Your task to perform on an android device: change your default location settings in chrome Image 0: 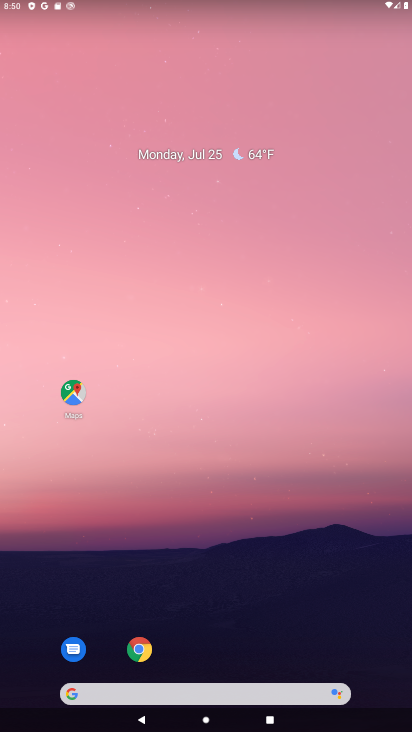
Step 0: click (288, 618)
Your task to perform on an android device: change your default location settings in chrome Image 1: 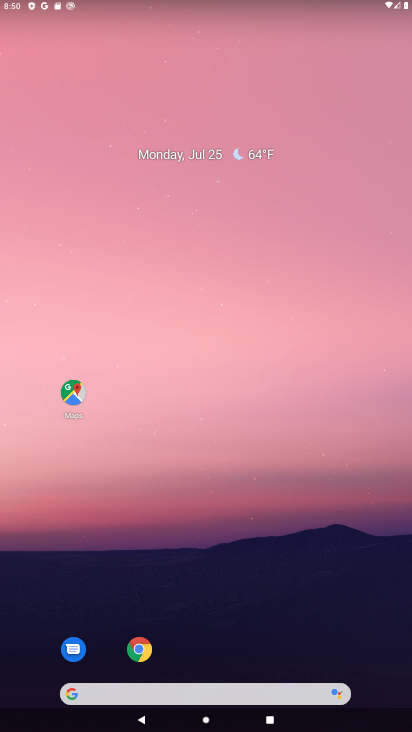
Step 1: click (144, 649)
Your task to perform on an android device: change your default location settings in chrome Image 2: 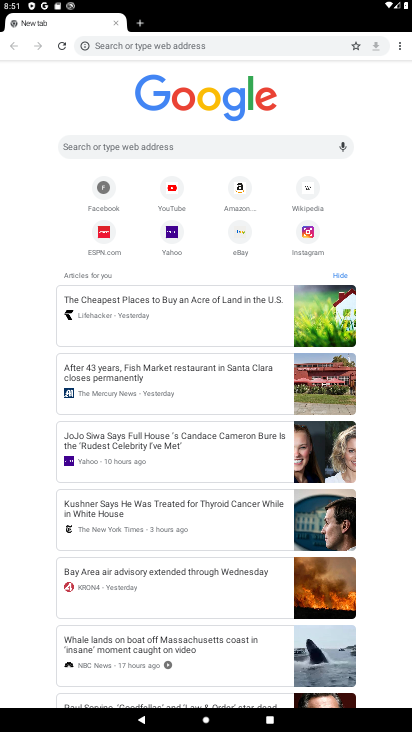
Step 2: click (398, 48)
Your task to perform on an android device: change your default location settings in chrome Image 3: 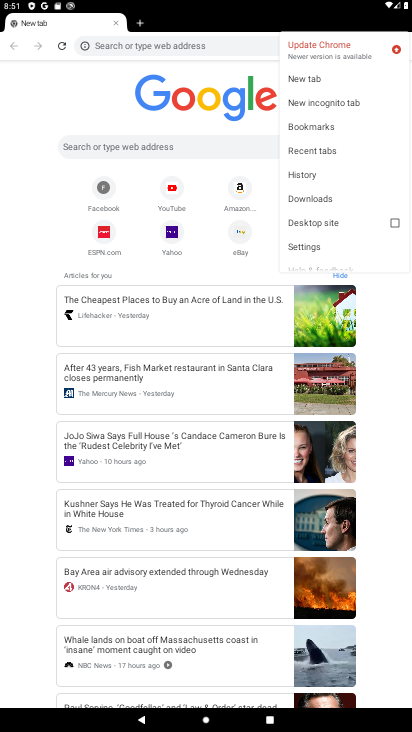
Step 3: click (323, 247)
Your task to perform on an android device: change your default location settings in chrome Image 4: 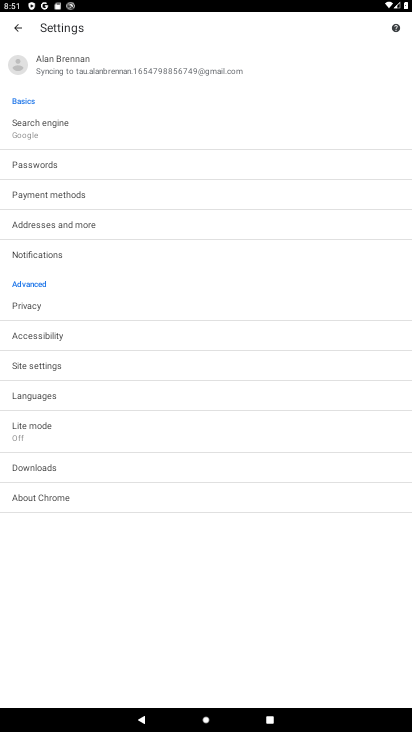
Step 4: click (85, 368)
Your task to perform on an android device: change your default location settings in chrome Image 5: 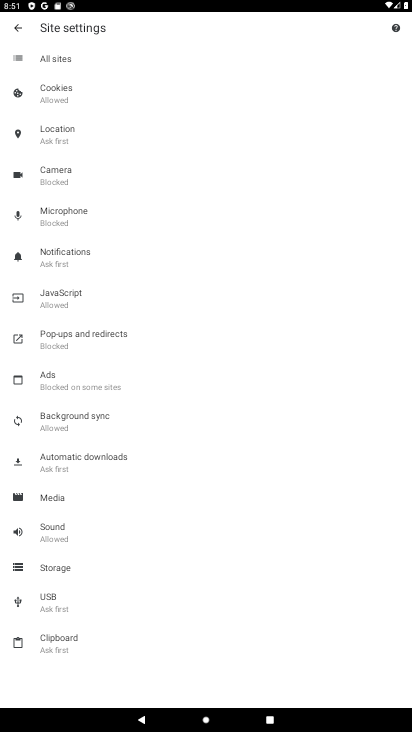
Step 5: click (96, 129)
Your task to perform on an android device: change your default location settings in chrome Image 6: 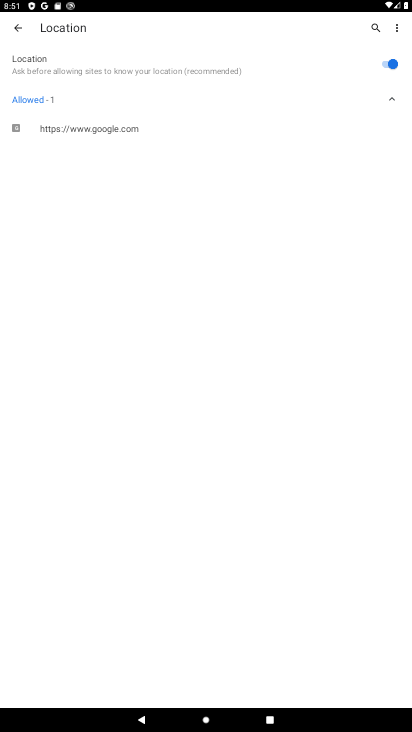
Step 6: click (381, 64)
Your task to perform on an android device: change your default location settings in chrome Image 7: 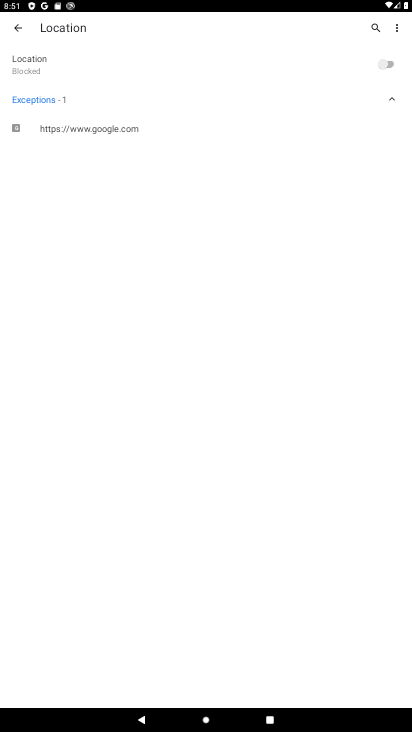
Step 7: task complete